Your task to perform on an android device: turn off location history Image 0: 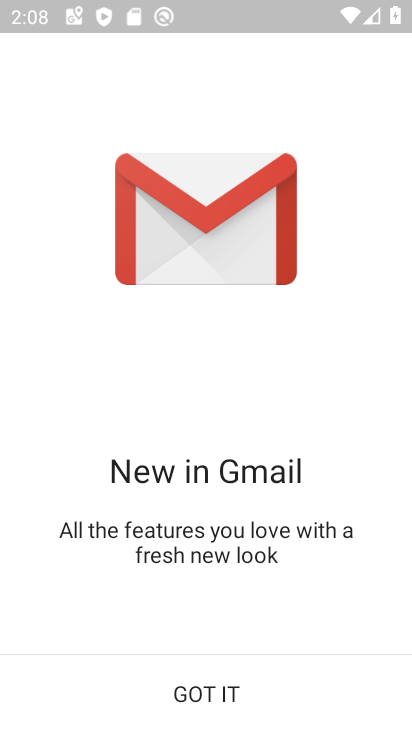
Step 0: press home button
Your task to perform on an android device: turn off location history Image 1: 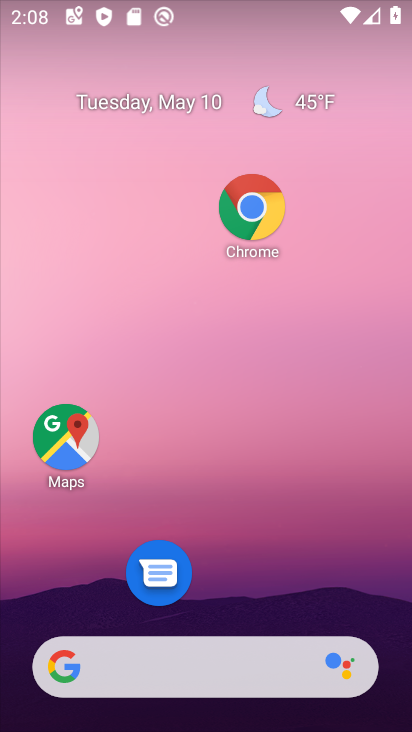
Step 1: drag from (239, 572) to (292, 82)
Your task to perform on an android device: turn off location history Image 2: 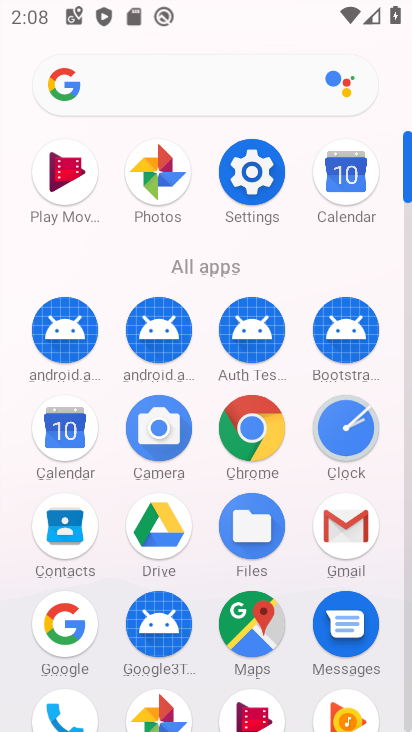
Step 2: click (275, 201)
Your task to perform on an android device: turn off location history Image 3: 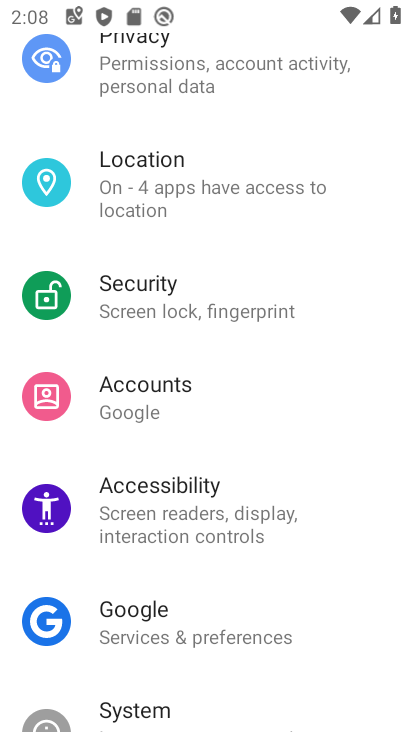
Step 3: click (209, 218)
Your task to perform on an android device: turn off location history Image 4: 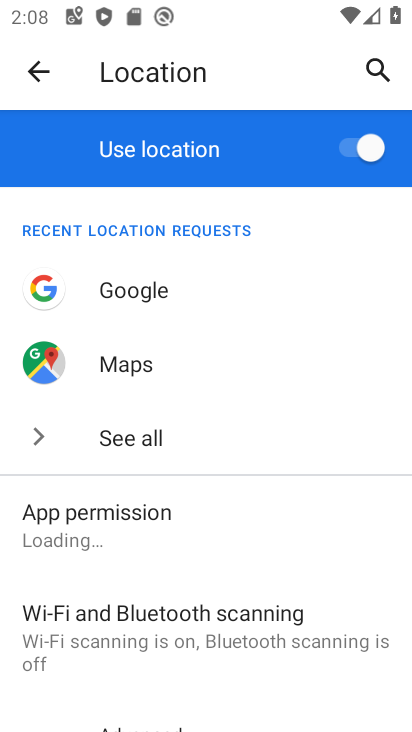
Step 4: click (340, 148)
Your task to perform on an android device: turn off location history Image 5: 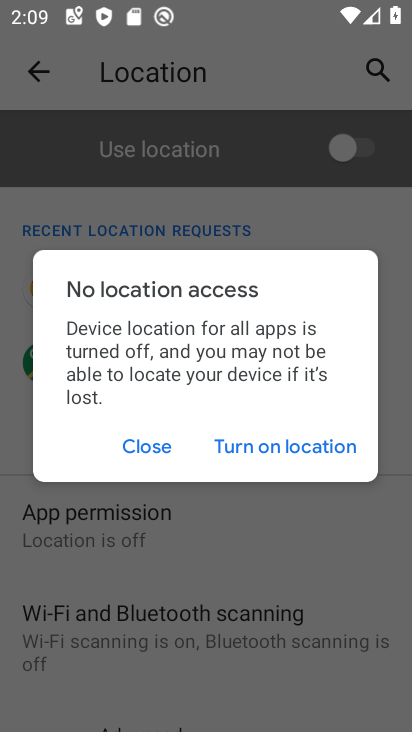
Step 5: task complete